Your task to perform on an android device: change alarm snooze length Image 0: 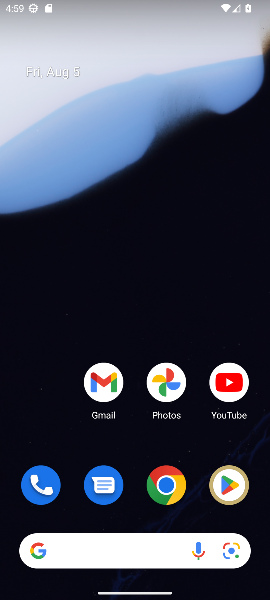
Step 0: drag from (139, 460) to (153, 133)
Your task to perform on an android device: change alarm snooze length Image 1: 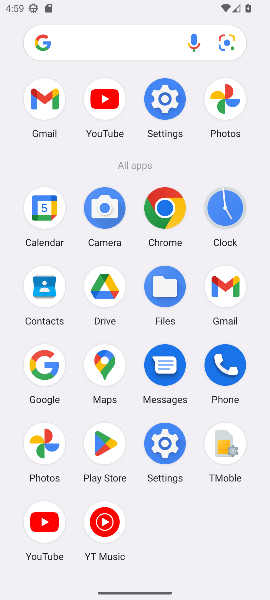
Step 1: click (234, 208)
Your task to perform on an android device: change alarm snooze length Image 2: 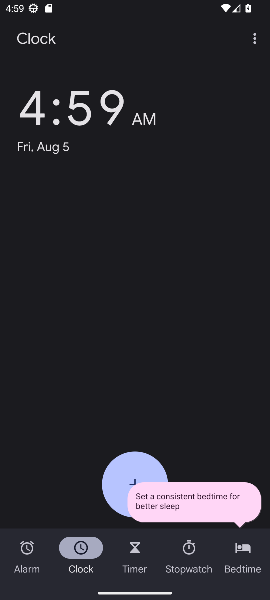
Step 2: click (254, 38)
Your task to perform on an android device: change alarm snooze length Image 3: 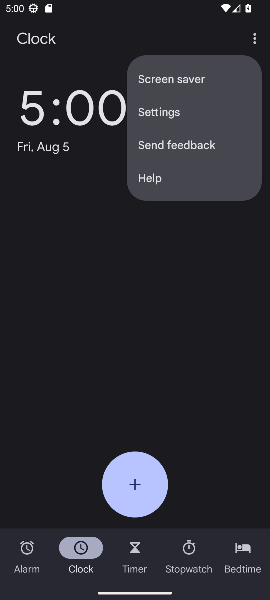
Step 3: click (170, 113)
Your task to perform on an android device: change alarm snooze length Image 4: 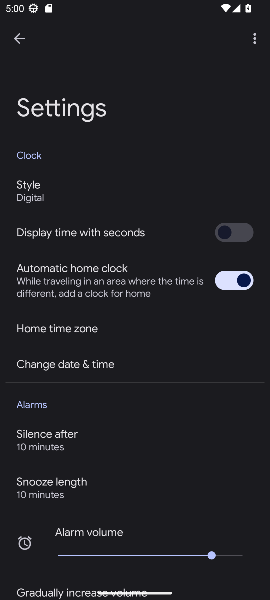
Step 4: click (85, 482)
Your task to perform on an android device: change alarm snooze length Image 5: 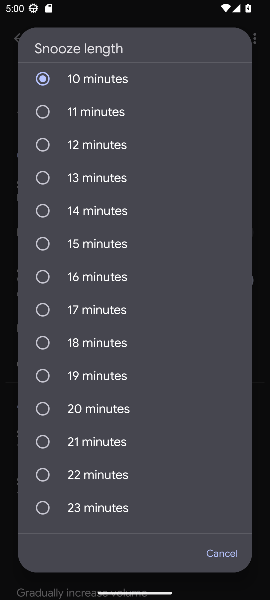
Step 5: click (46, 242)
Your task to perform on an android device: change alarm snooze length Image 6: 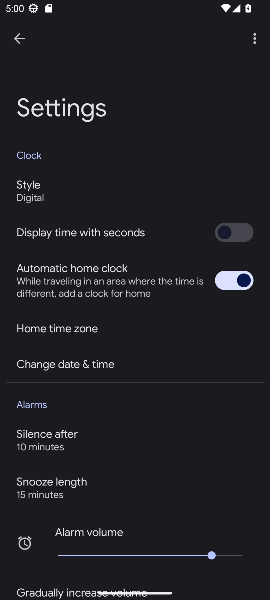
Step 6: task complete